Your task to perform on an android device: Open calendar and show me the fourth week of next month Image 0: 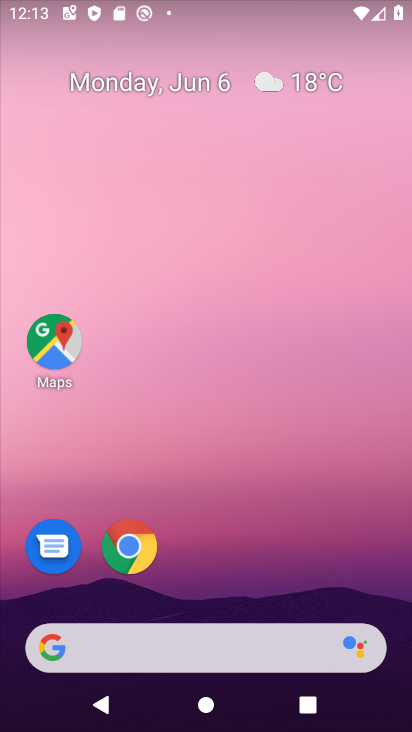
Step 0: drag from (279, 569) to (204, 68)
Your task to perform on an android device: Open calendar and show me the fourth week of next month Image 1: 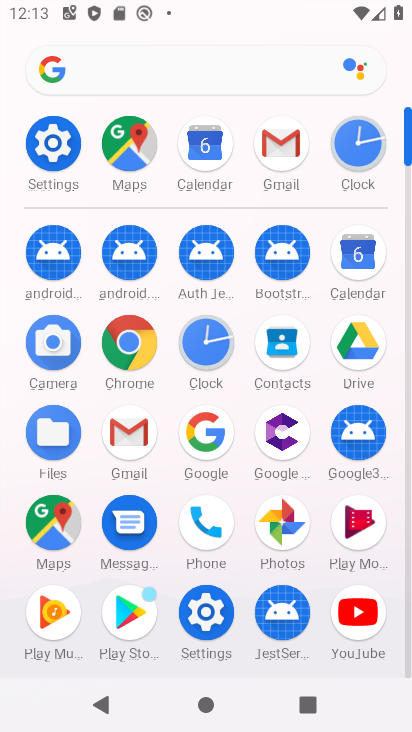
Step 1: click (350, 257)
Your task to perform on an android device: Open calendar and show me the fourth week of next month Image 2: 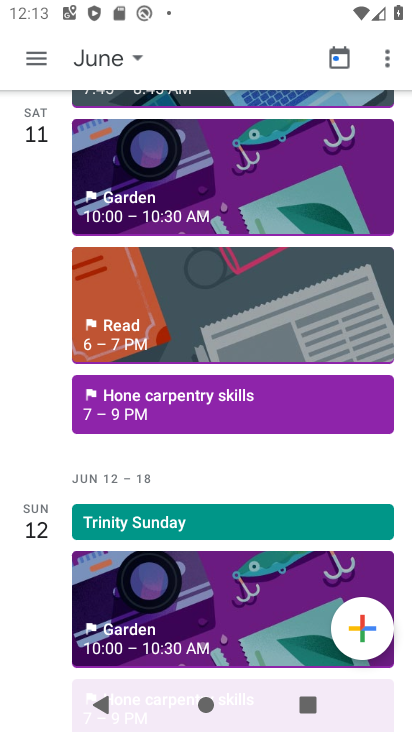
Step 2: click (35, 57)
Your task to perform on an android device: Open calendar and show me the fourth week of next month Image 3: 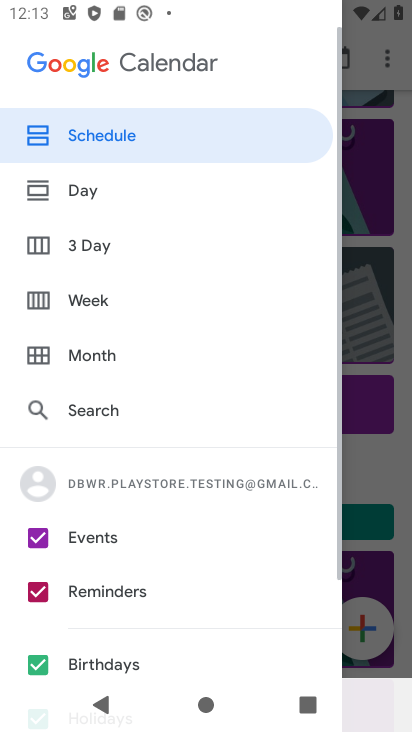
Step 3: click (114, 350)
Your task to perform on an android device: Open calendar and show me the fourth week of next month Image 4: 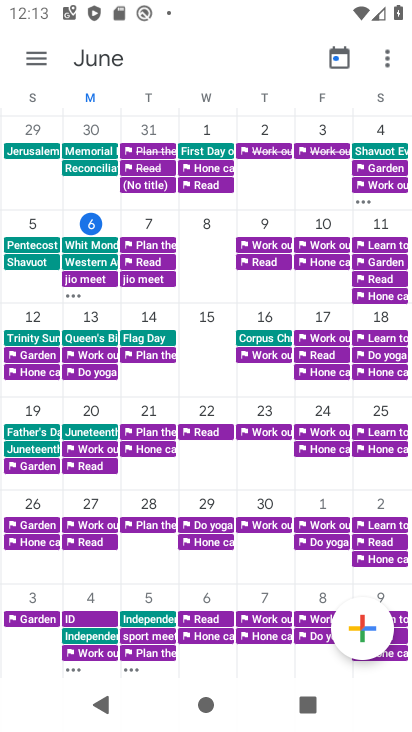
Step 4: drag from (275, 385) to (3, 340)
Your task to perform on an android device: Open calendar and show me the fourth week of next month Image 5: 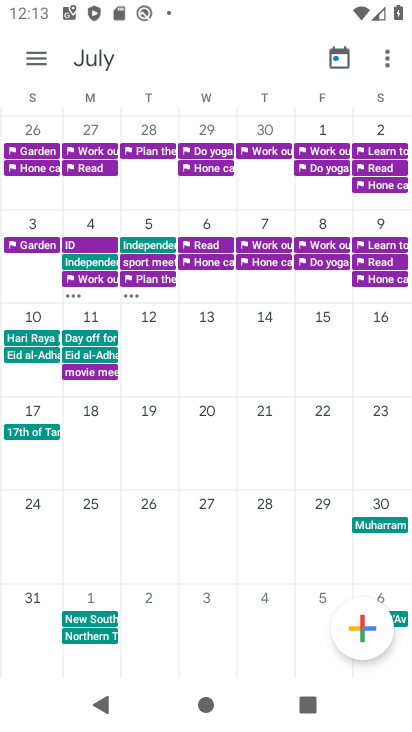
Step 5: click (28, 535)
Your task to perform on an android device: Open calendar and show me the fourth week of next month Image 6: 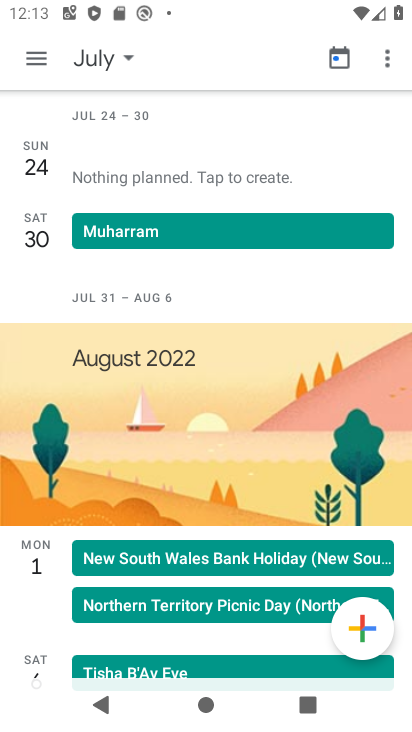
Step 6: task complete